Your task to perform on an android device: toggle wifi Image 0: 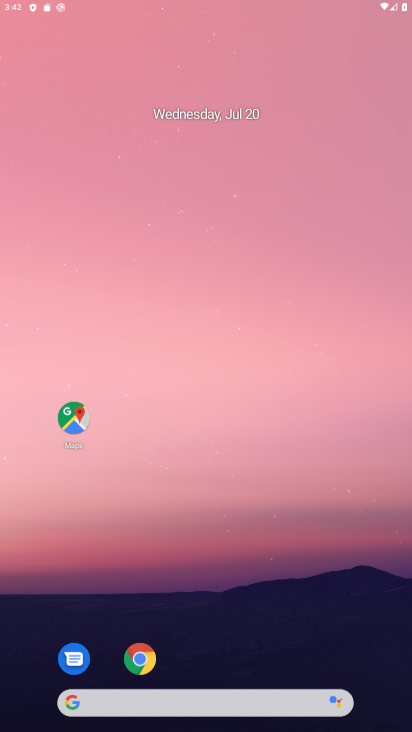
Step 0: click (227, 74)
Your task to perform on an android device: toggle wifi Image 1: 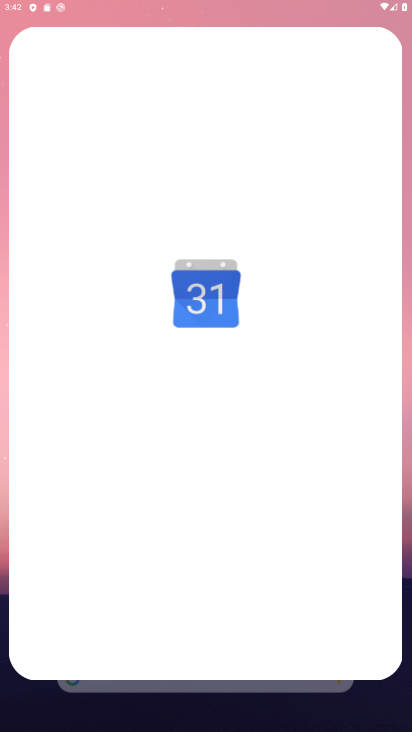
Step 1: drag from (297, 661) to (239, 4)
Your task to perform on an android device: toggle wifi Image 2: 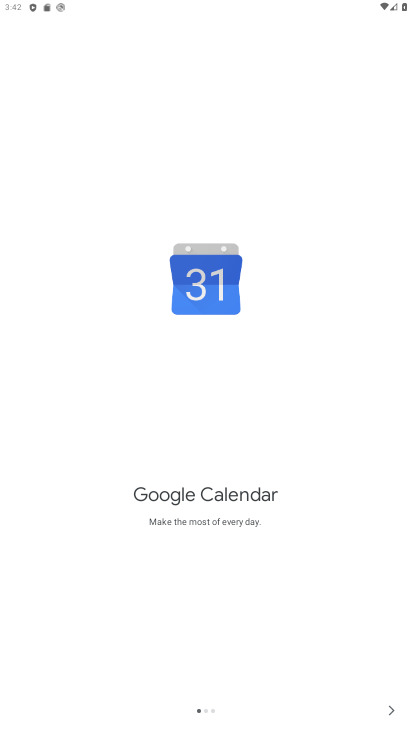
Step 2: click (389, 714)
Your task to perform on an android device: toggle wifi Image 3: 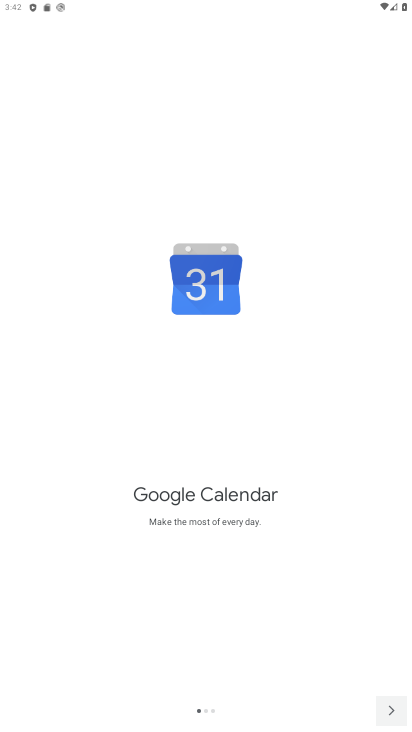
Step 3: click (392, 714)
Your task to perform on an android device: toggle wifi Image 4: 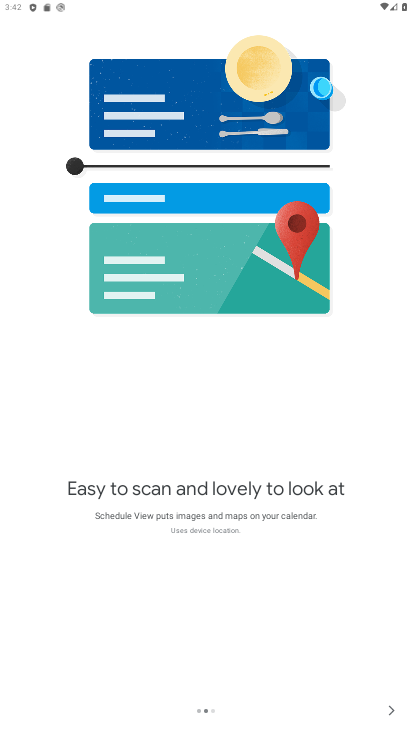
Step 4: click (393, 715)
Your task to perform on an android device: toggle wifi Image 5: 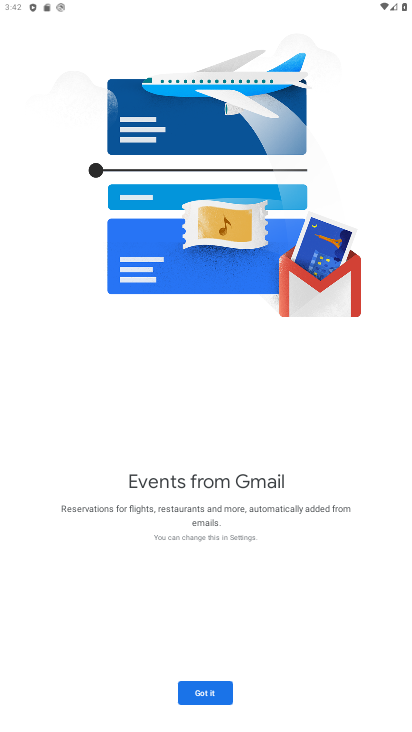
Step 5: click (213, 686)
Your task to perform on an android device: toggle wifi Image 6: 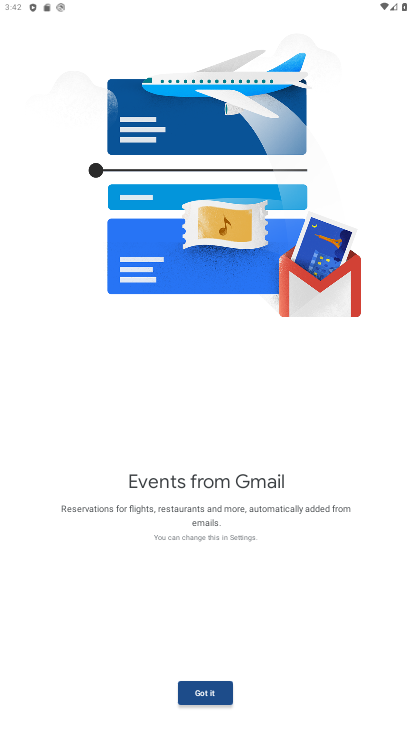
Step 6: click (225, 697)
Your task to perform on an android device: toggle wifi Image 7: 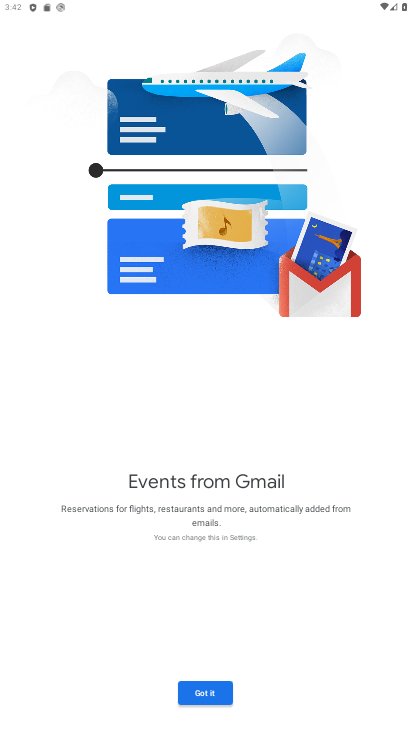
Step 7: click (226, 700)
Your task to perform on an android device: toggle wifi Image 8: 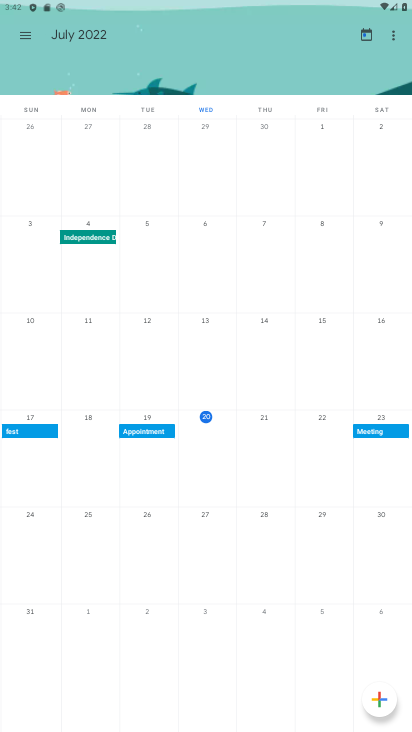
Step 8: press back button
Your task to perform on an android device: toggle wifi Image 9: 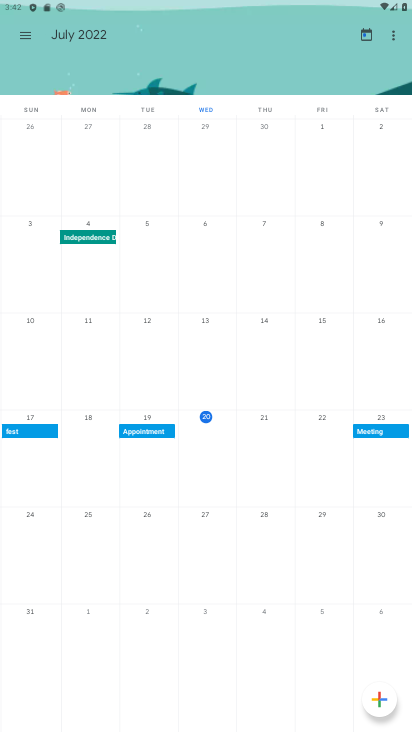
Step 9: press back button
Your task to perform on an android device: toggle wifi Image 10: 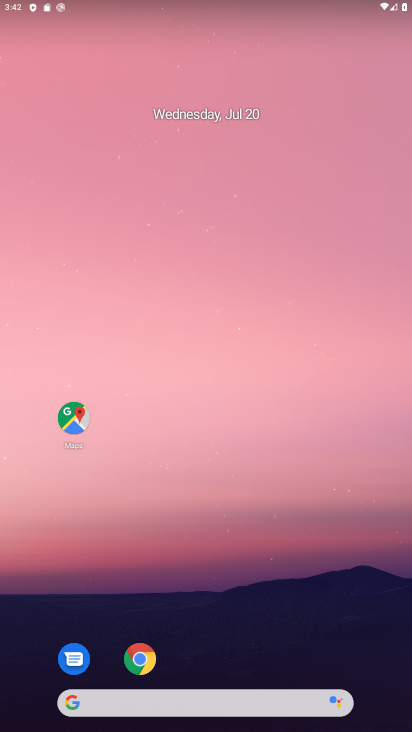
Step 10: click (217, 236)
Your task to perform on an android device: toggle wifi Image 11: 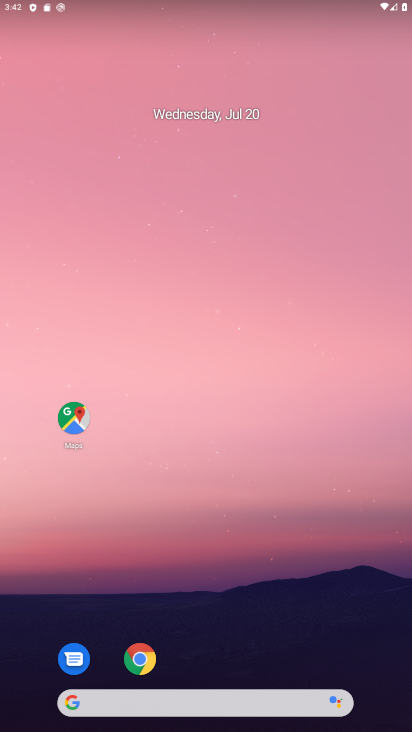
Step 11: drag from (108, 285) to (108, 174)
Your task to perform on an android device: toggle wifi Image 12: 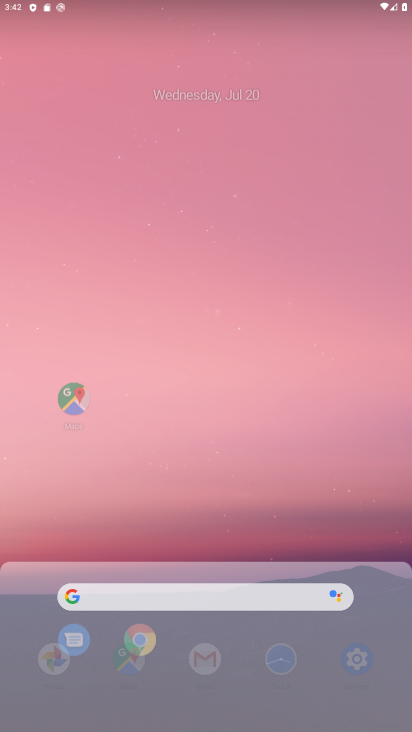
Step 12: drag from (206, 485) to (239, 49)
Your task to perform on an android device: toggle wifi Image 13: 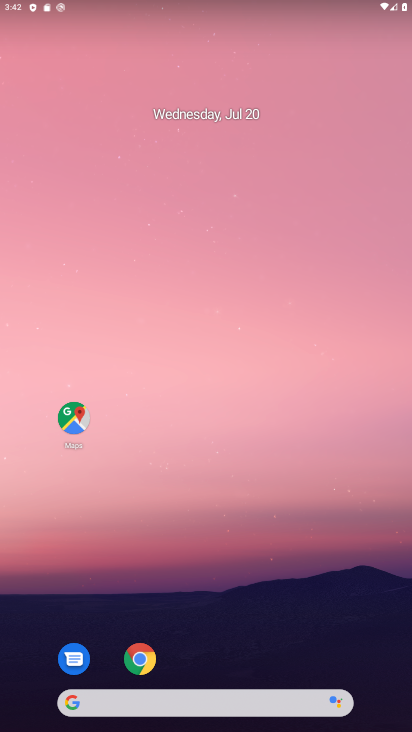
Step 13: drag from (248, 511) to (224, 13)
Your task to perform on an android device: toggle wifi Image 14: 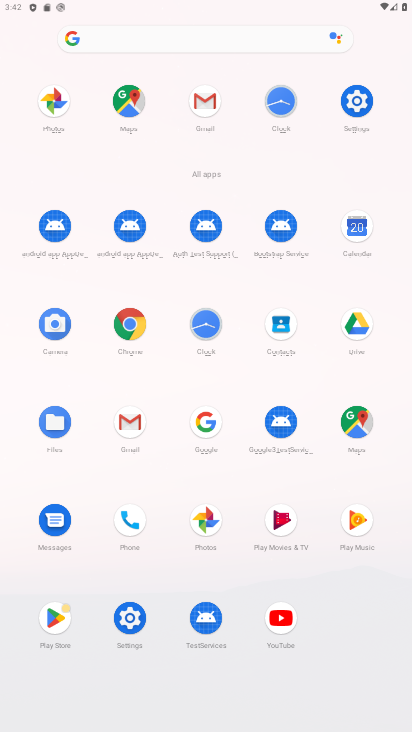
Step 14: drag from (251, 456) to (241, 64)
Your task to perform on an android device: toggle wifi Image 15: 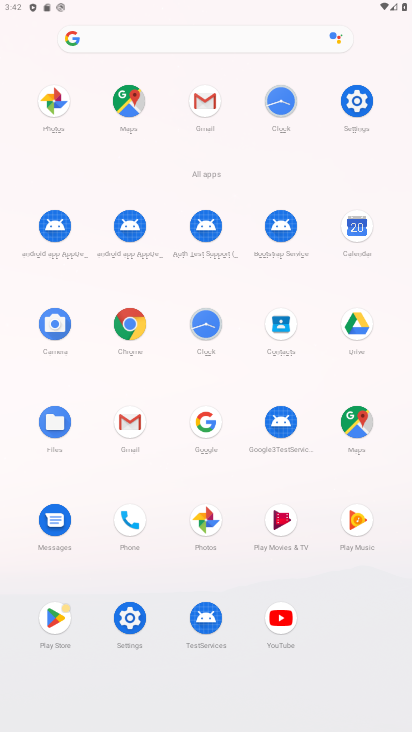
Step 15: click (352, 100)
Your task to perform on an android device: toggle wifi Image 16: 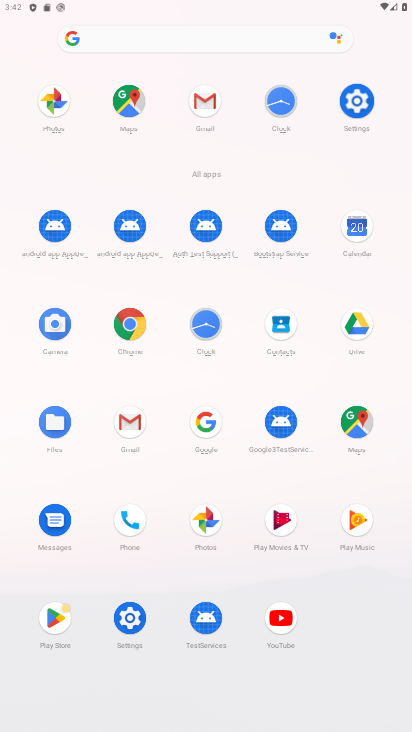
Step 16: click (353, 102)
Your task to perform on an android device: toggle wifi Image 17: 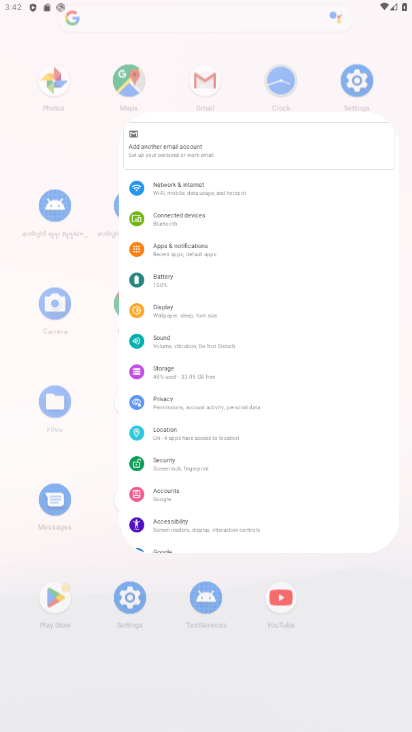
Step 17: click (357, 108)
Your task to perform on an android device: toggle wifi Image 18: 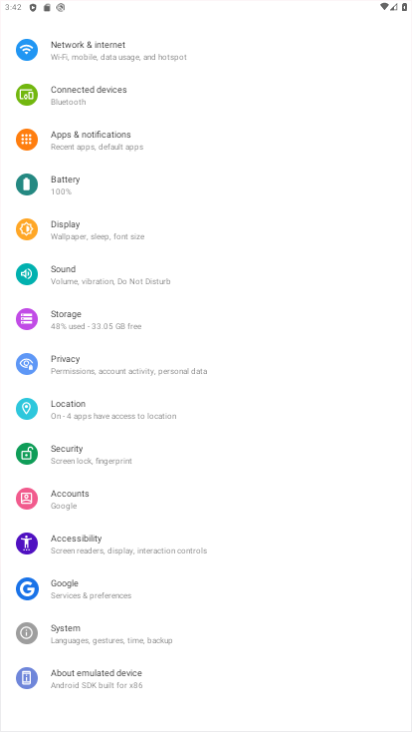
Step 18: click (362, 112)
Your task to perform on an android device: toggle wifi Image 19: 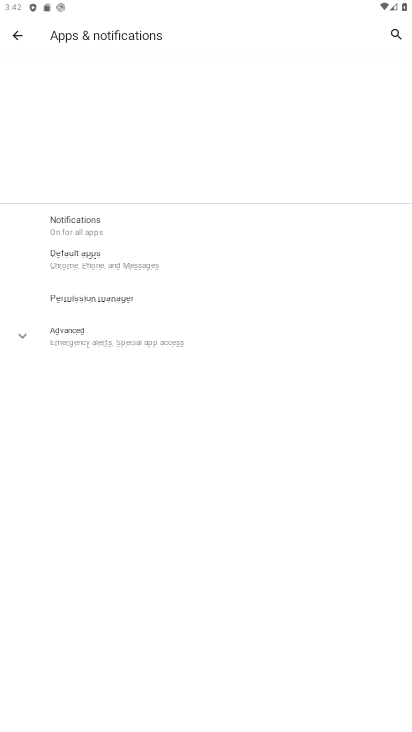
Step 19: click (96, 41)
Your task to perform on an android device: toggle wifi Image 20: 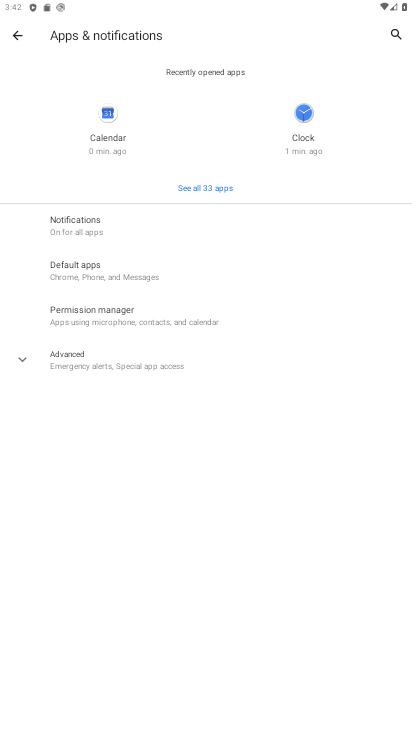
Step 20: click (18, 35)
Your task to perform on an android device: toggle wifi Image 21: 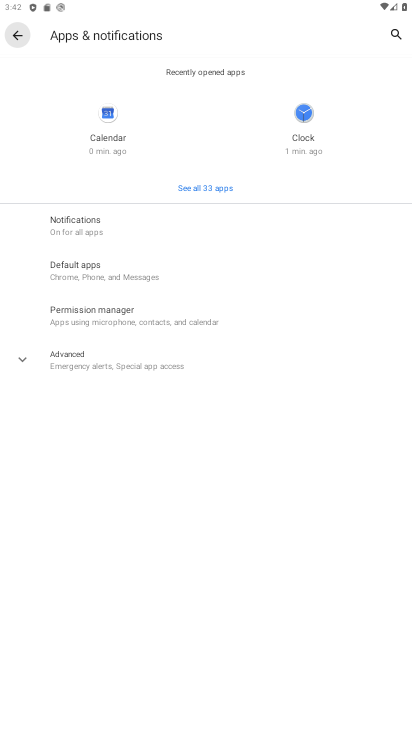
Step 21: click (18, 35)
Your task to perform on an android device: toggle wifi Image 22: 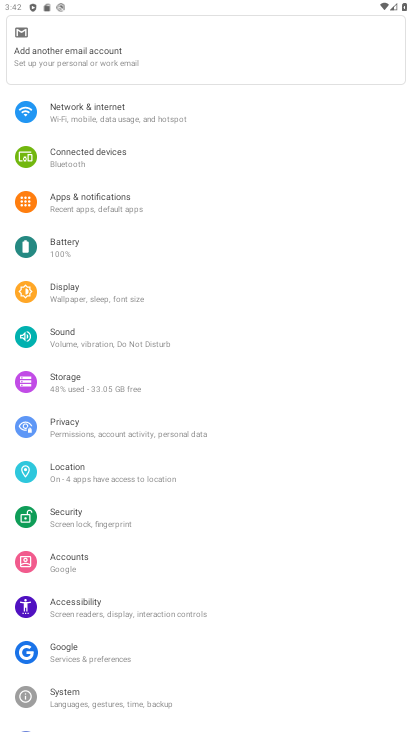
Step 22: click (125, 119)
Your task to perform on an android device: toggle wifi Image 23: 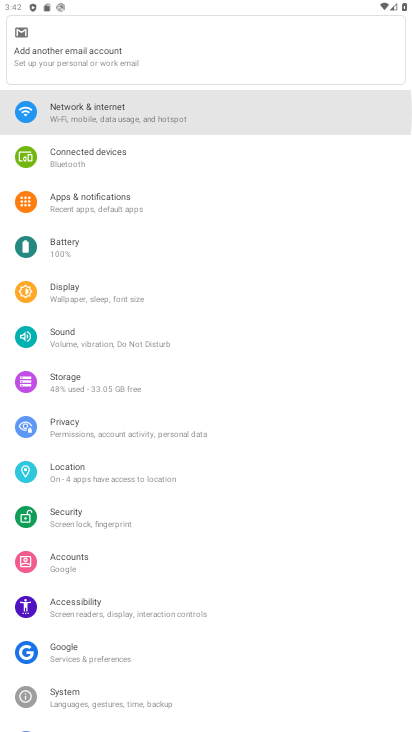
Step 23: click (125, 119)
Your task to perform on an android device: toggle wifi Image 24: 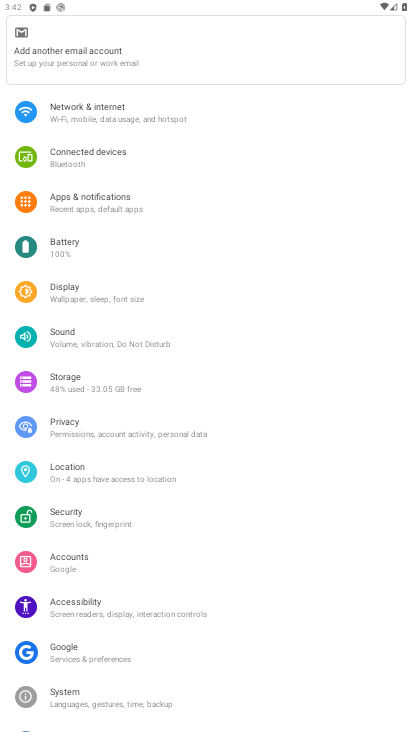
Step 24: click (125, 119)
Your task to perform on an android device: toggle wifi Image 25: 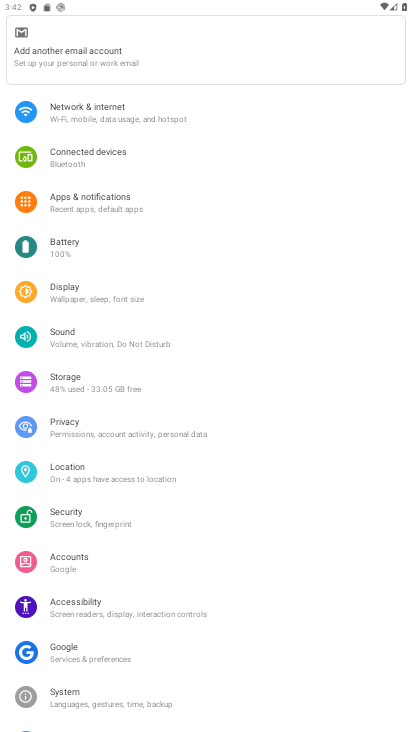
Step 25: click (125, 119)
Your task to perform on an android device: toggle wifi Image 26: 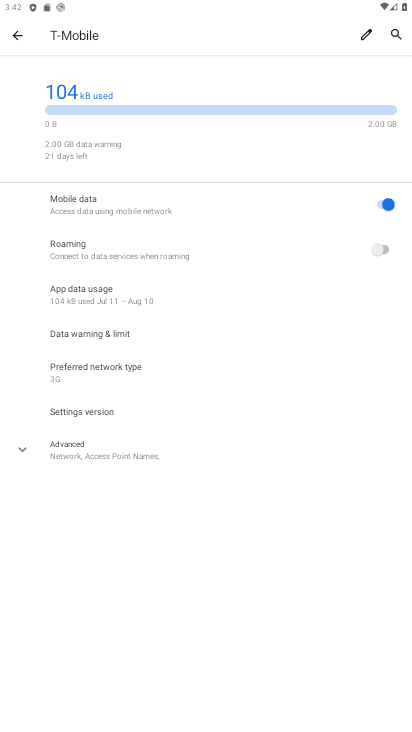
Step 26: click (16, 35)
Your task to perform on an android device: toggle wifi Image 27: 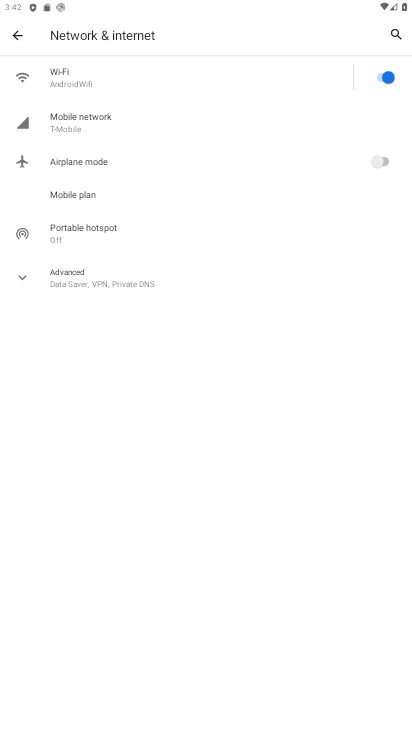
Step 27: task complete